Your task to perform on an android device: Open the gallery Image 0: 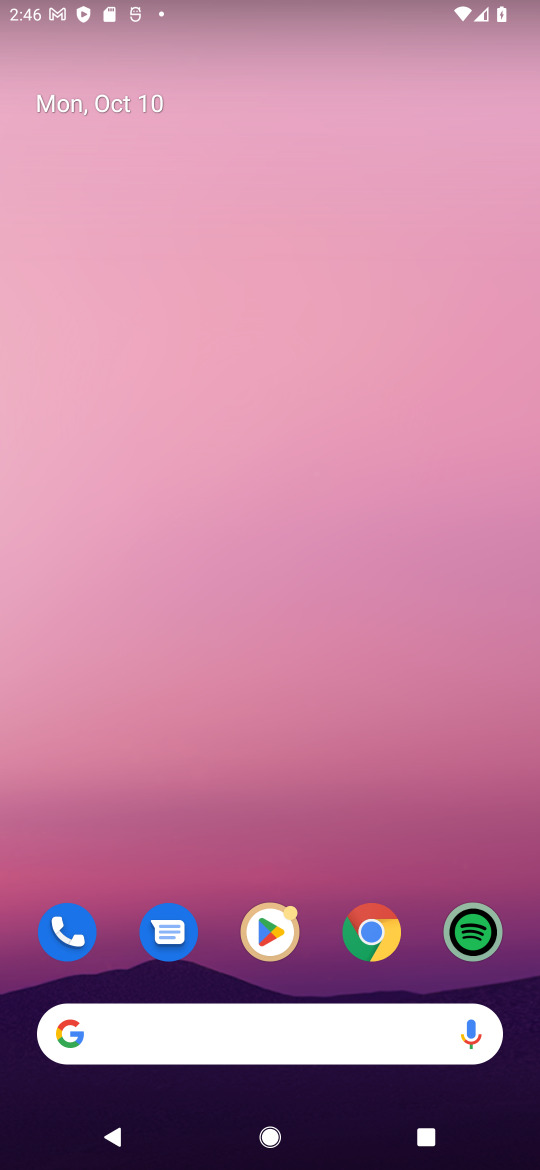
Step 0: press home button
Your task to perform on an android device: Open the gallery Image 1: 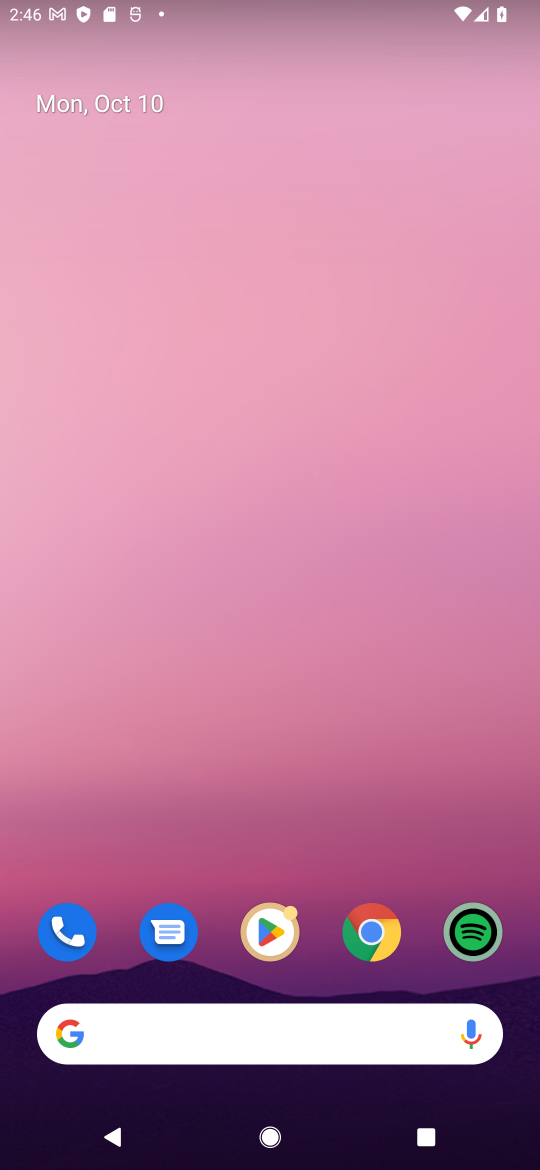
Step 1: drag from (486, 845) to (511, 82)
Your task to perform on an android device: Open the gallery Image 2: 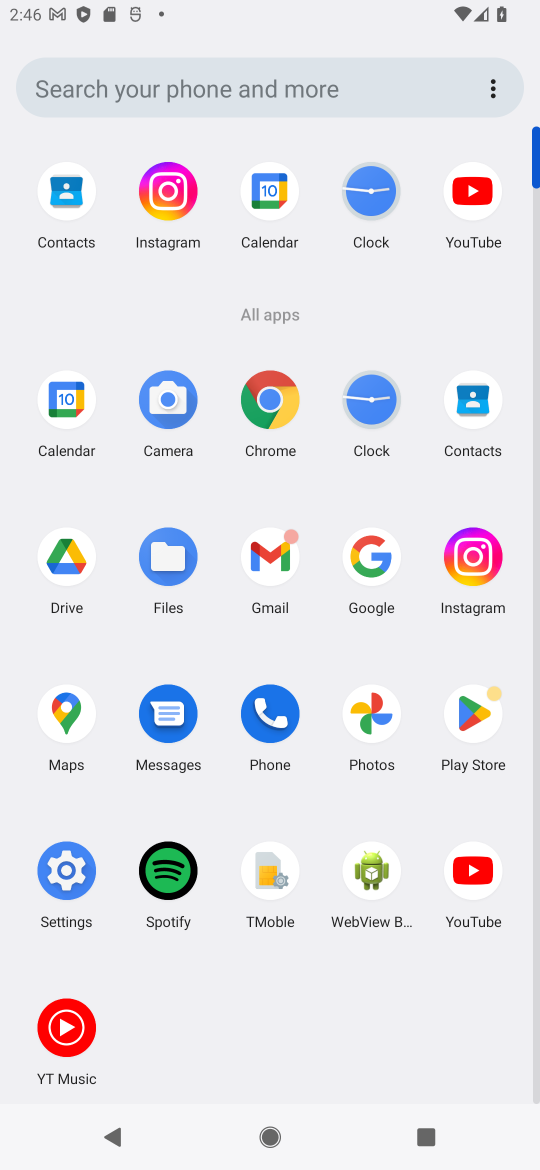
Step 2: click (370, 728)
Your task to perform on an android device: Open the gallery Image 3: 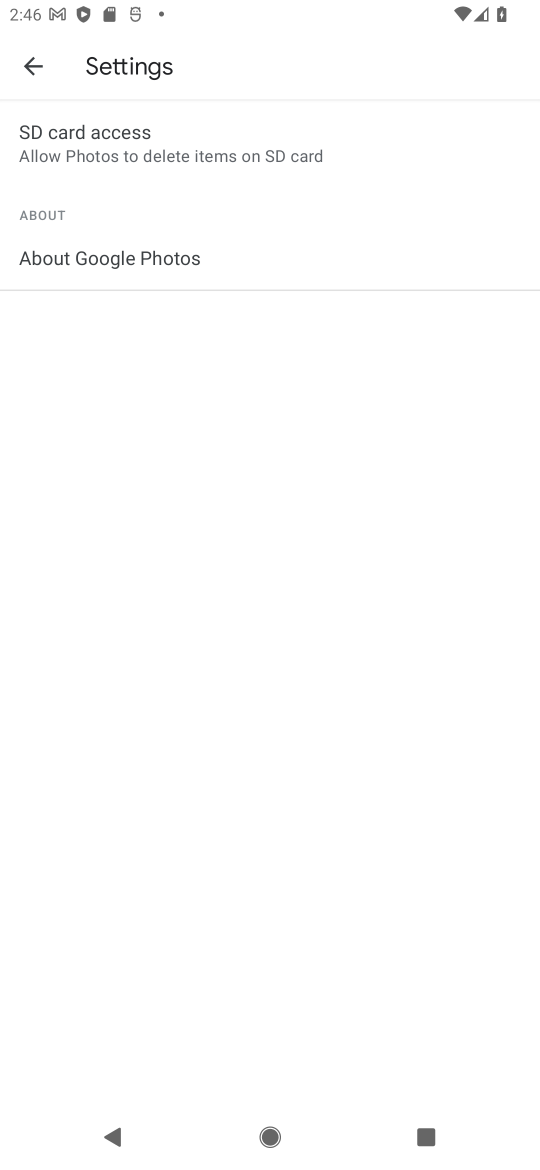
Step 3: press back button
Your task to perform on an android device: Open the gallery Image 4: 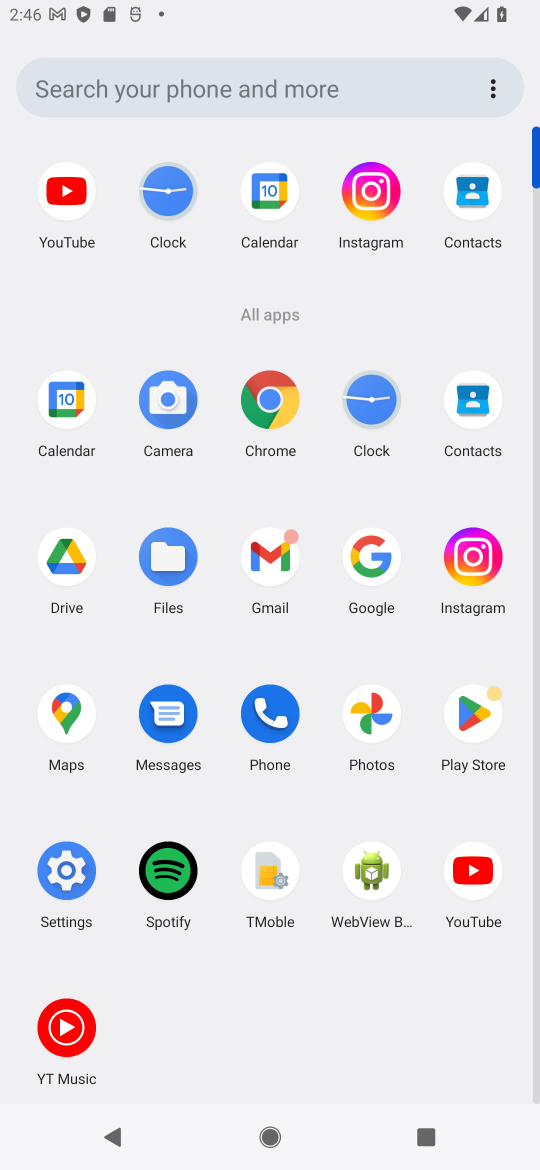
Step 4: click (375, 724)
Your task to perform on an android device: Open the gallery Image 5: 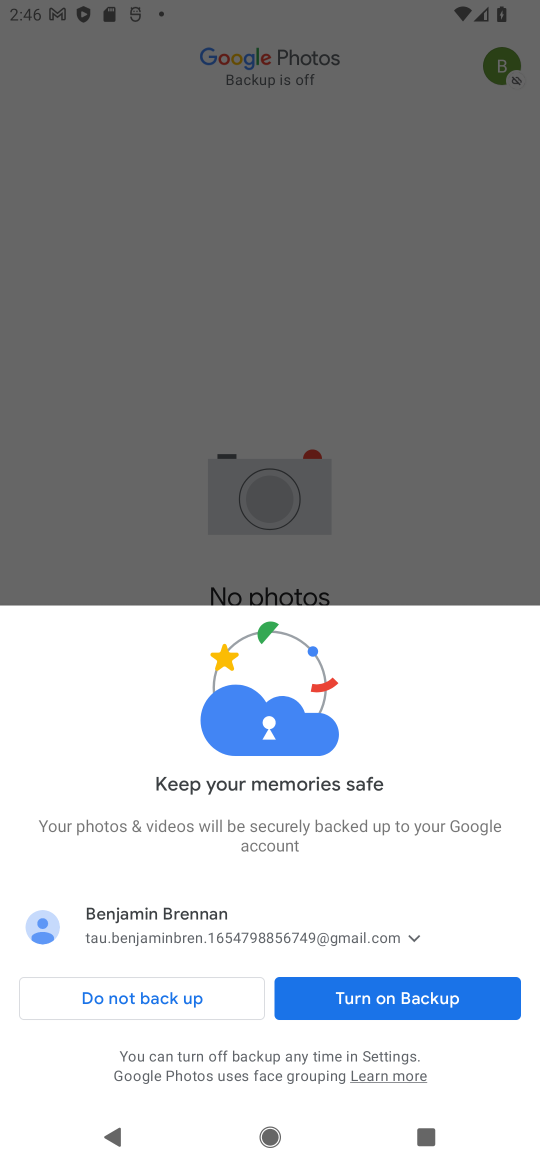
Step 5: click (186, 1002)
Your task to perform on an android device: Open the gallery Image 6: 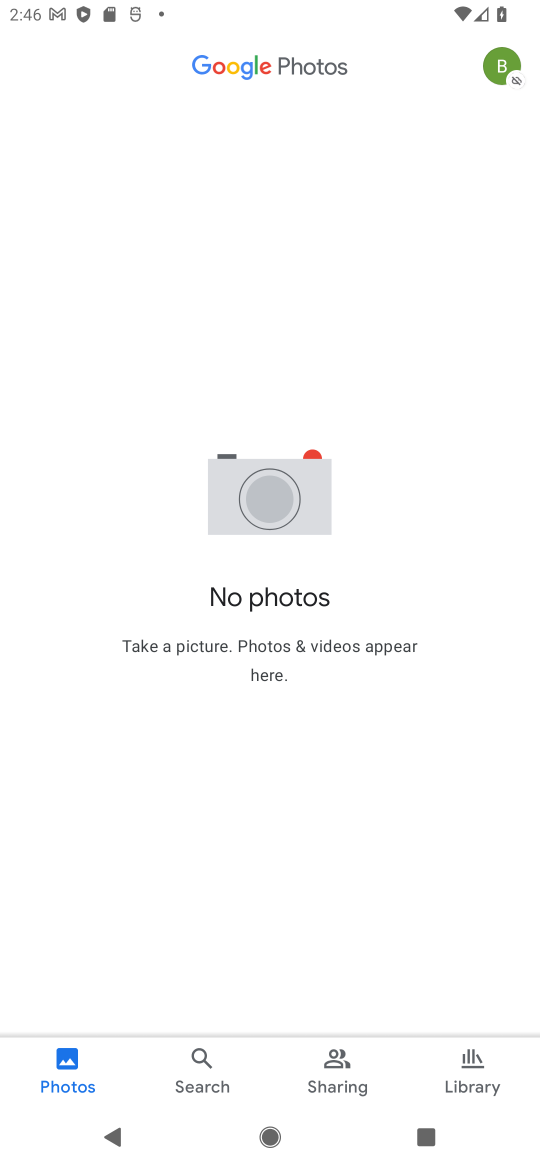
Step 6: task complete